Your task to perform on an android device: Clear the shopping cart on ebay.com. Image 0: 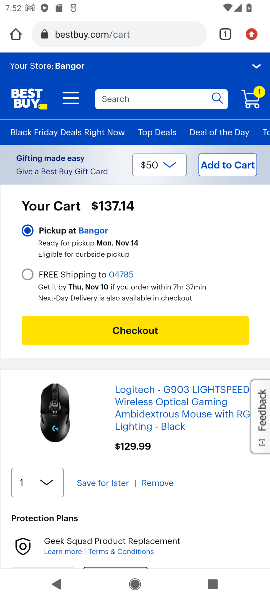
Step 0: press home button
Your task to perform on an android device: Clear the shopping cart on ebay.com. Image 1: 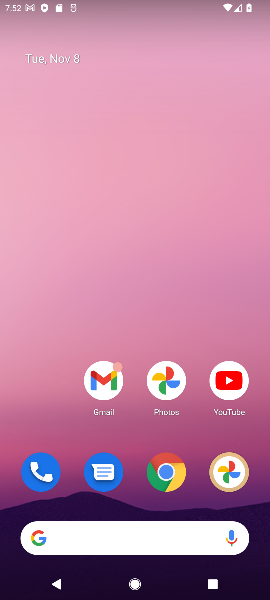
Step 1: click (161, 475)
Your task to perform on an android device: Clear the shopping cart on ebay.com. Image 2: 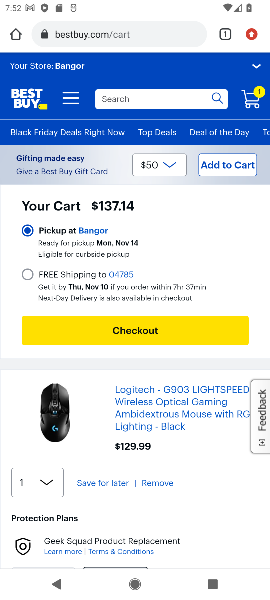
Step 2: click (128, 30)
Your task to perform on an android device: Clear the shopping cart on ebay.com. Image 3: 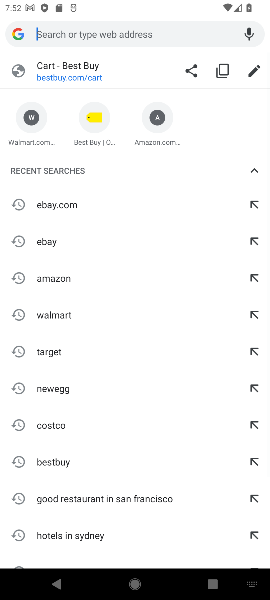
Step 3: click (50, 205)
Your task to perform on an android device: Clear the shopping cart on ebay.com. Image 4: 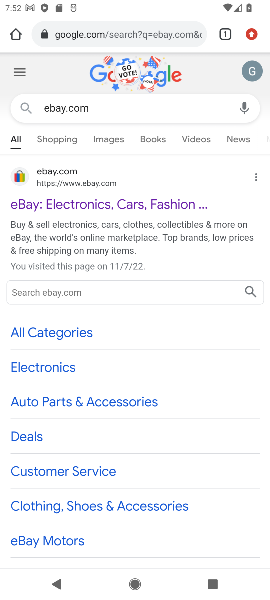
Step 4: click (90, 204)
Your task to perform on an android device: Clear the shopping cart on ebay.com. Image 5: 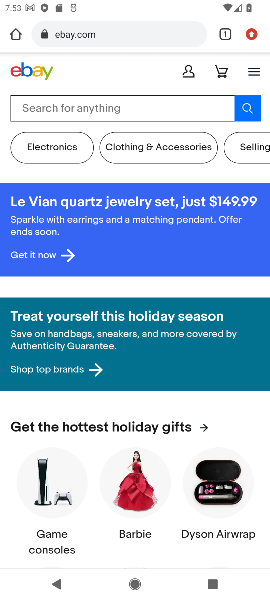
Step 5: click (221, 70)
Your task to perform on an android device: Clear the shopping cart on ebay.com. Image 6: 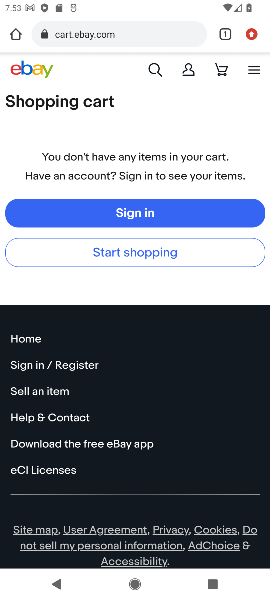
Step 6: task complete